Your task to perform on an android device: all mails in gmail Image 0: 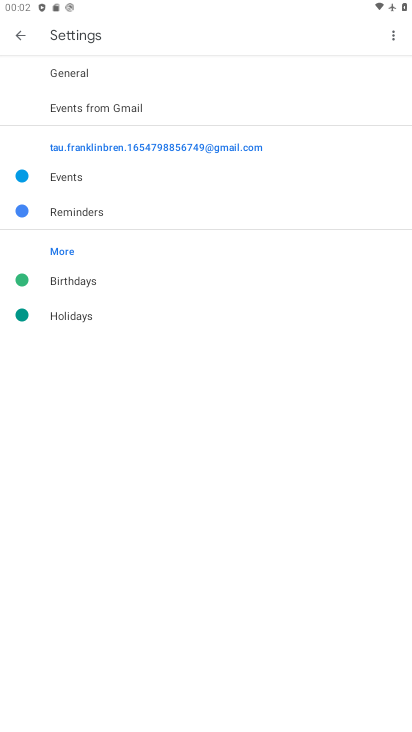
Step 0: press back button
Your task to perform on an android device: all mails in gmail Image 1: 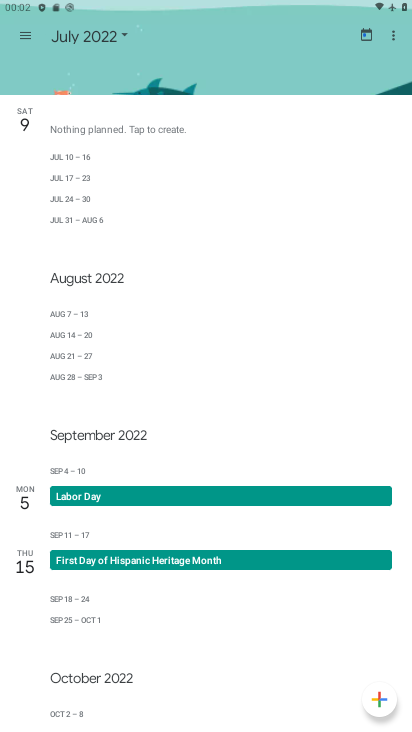
Step 1: press home button
Your task to perform on an android device: all mails in gmail Image 2: 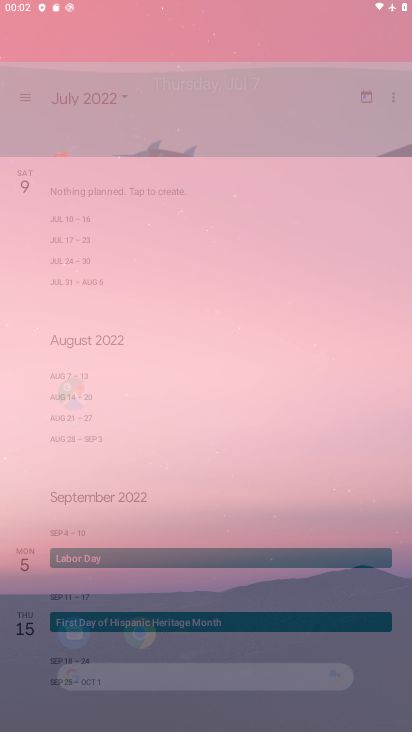
Step 2: press home button
Your task to perform on an android device: all mails in gmail Image 3: 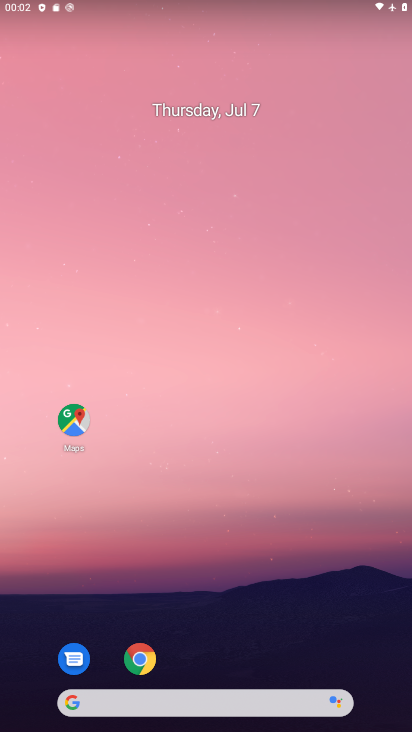
Step 3: drag from (242, 661) to (150, 119)
Your task to perform on an android device: all mails in gmail Image 4: 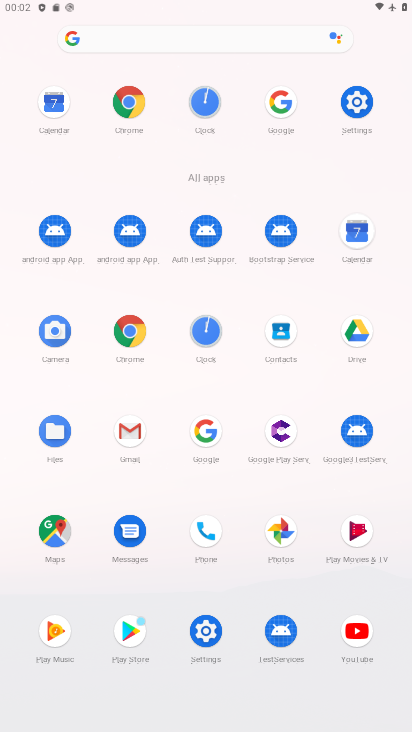
Step 4: click (127, 434)
Your task to perform on an android device: all mails in gmail Image 5: 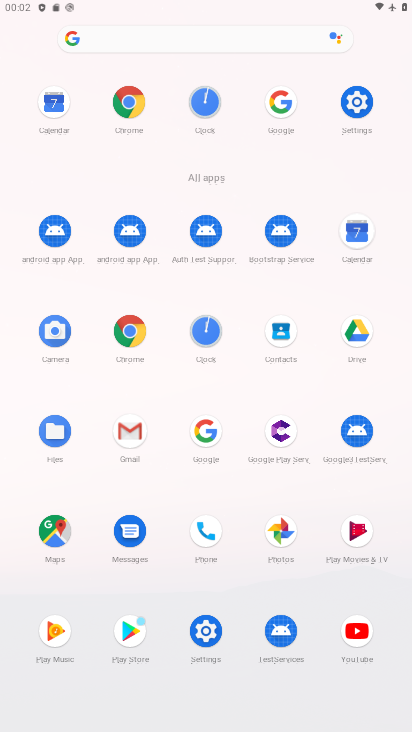
Step 5: click (131, 433)
Your task to perform on an android device: all mails in gmail Image 6: 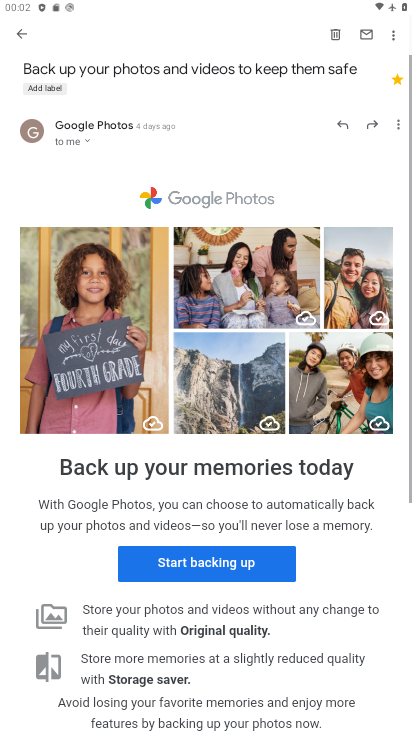
Step 6: click (133, 433)
Your task to perform on an android device: all mails in gmail Image 7: 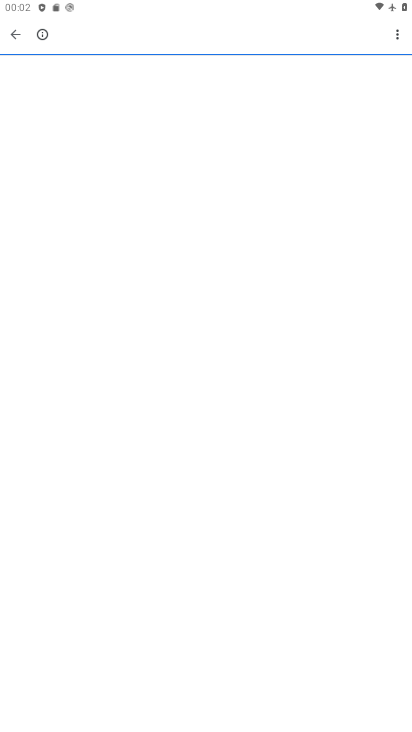
Step 7: click (18, 33)
Your task to perform on an android device: all mails in gmail Image 8: 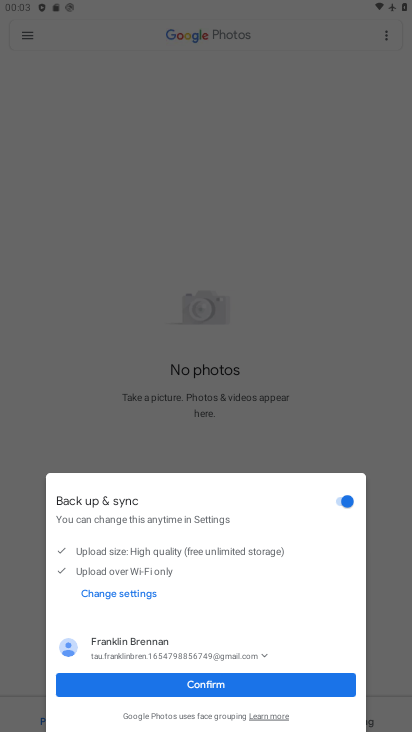
Step 8: click (253, 307)
Your task to perform on an android device: all mails in gmail Image 9: 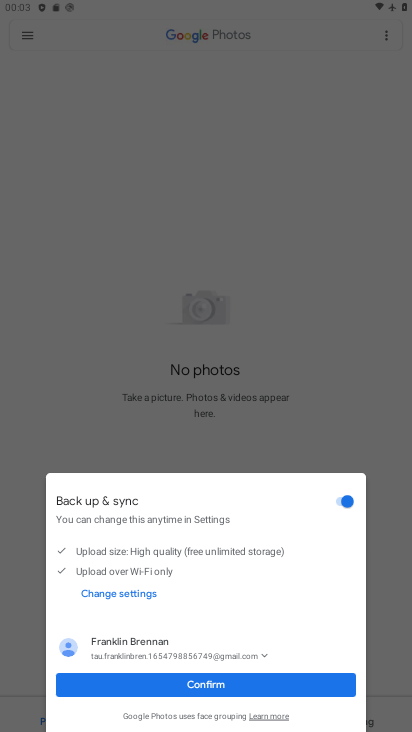
Step 9: click (277, 303)
Your task to perform on an android device: all mails in gmail Image 10: 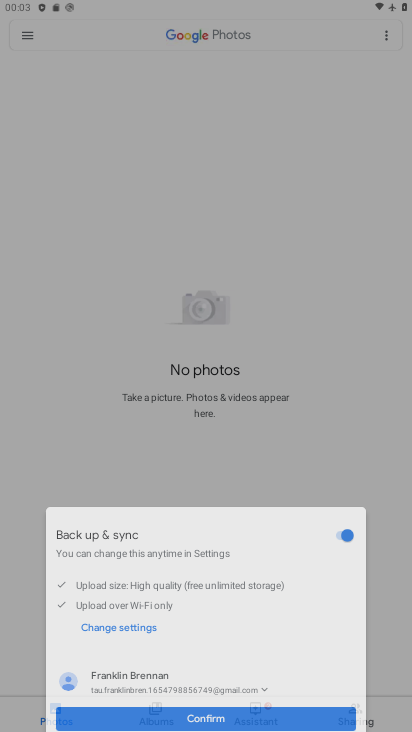
Step 10: drag from (282, 303) to (290, 354)
Your task to perform on an android device: all mails in gmail Image 11: 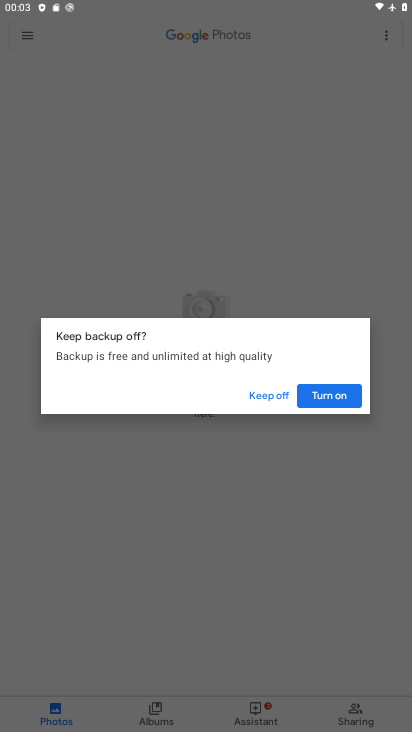
Step 11: click (282, 394)
Your task to perform on an android device: all mails in gmail Image 12: 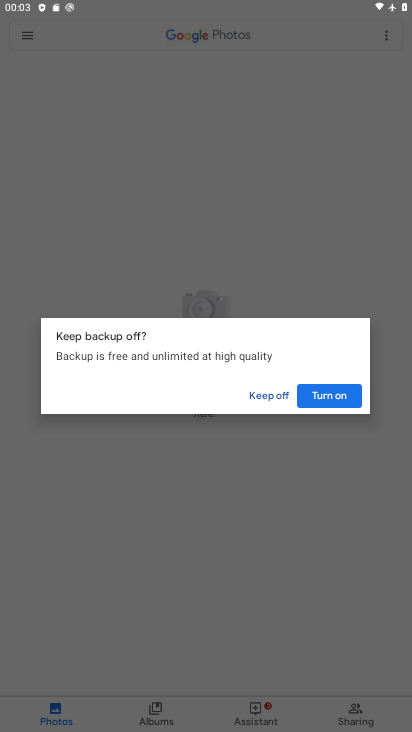
Step 12: click (284, 394)
Your task to perform on an android device: all mails in gmail Image 13: 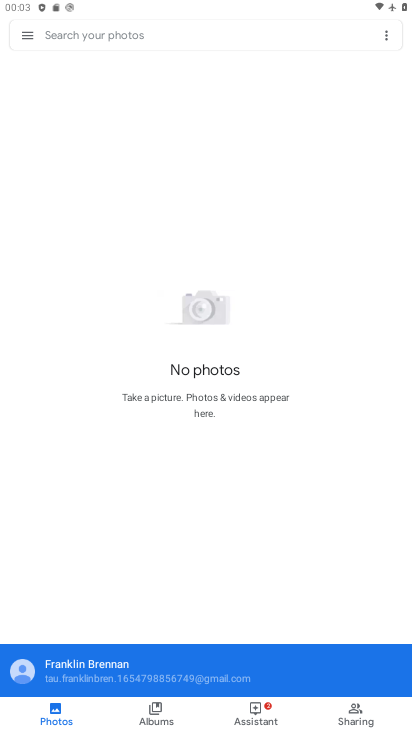
Step 13: click (34, 44)
Your task to perform on an android device: all mails in gmail Image 14: 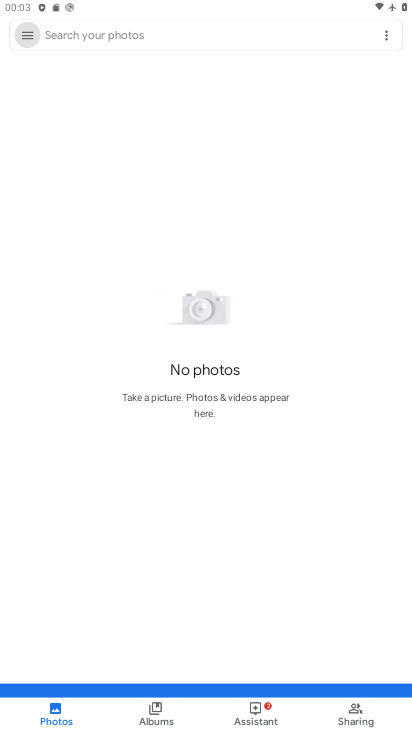
Step 14: click (34, 44)
Your task to perform on an android device: all mails in gmail Image 15: 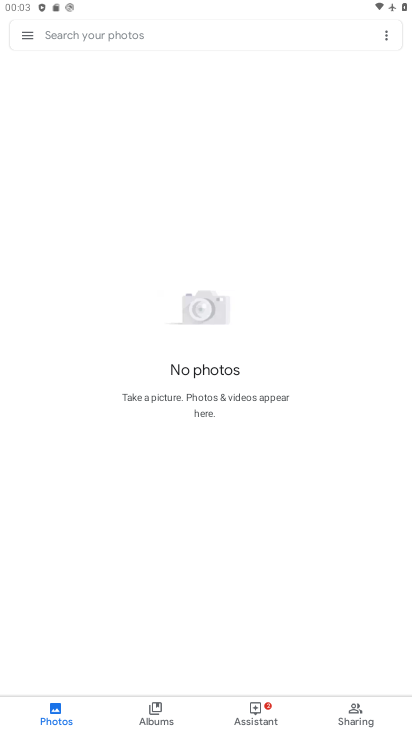
Step 15: press back button
Your task to perform on an android device: all mails in gmail Image 16: 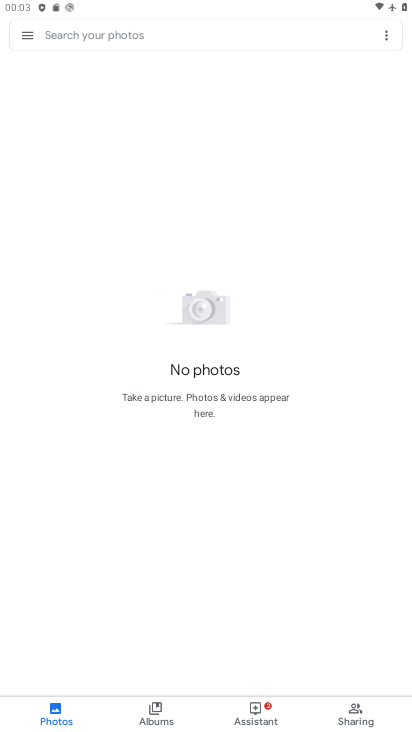
Step 16: press back button
Your task to perform on an android device: all mails in gmail Image 17: 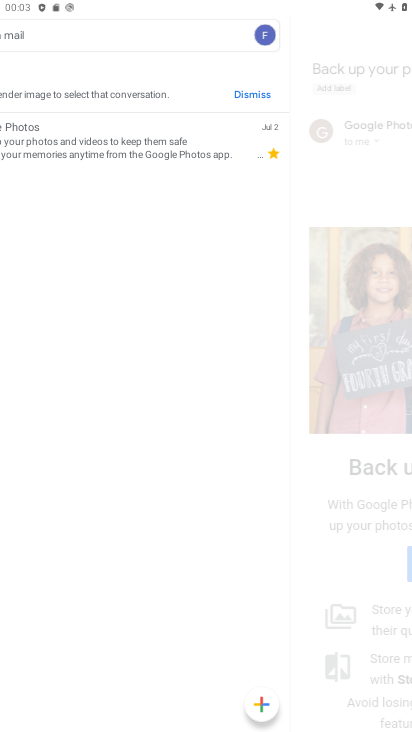
Step 17: press back button
Your task to perform on an android device: all mails in gmail Image 18: 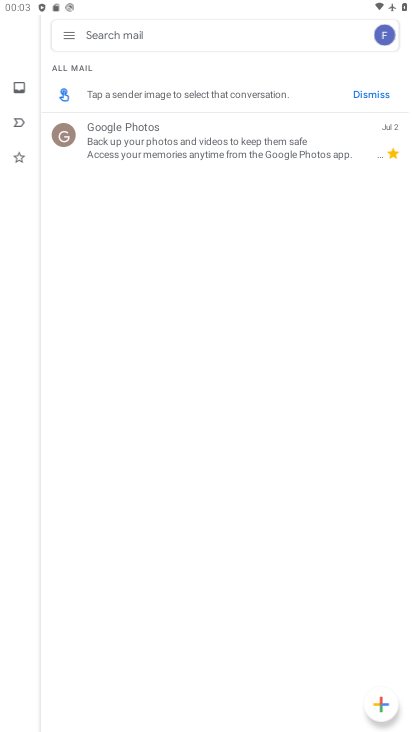
Step 18: press home button
Your task to perform on an android device: all mails in gmail Image 19: 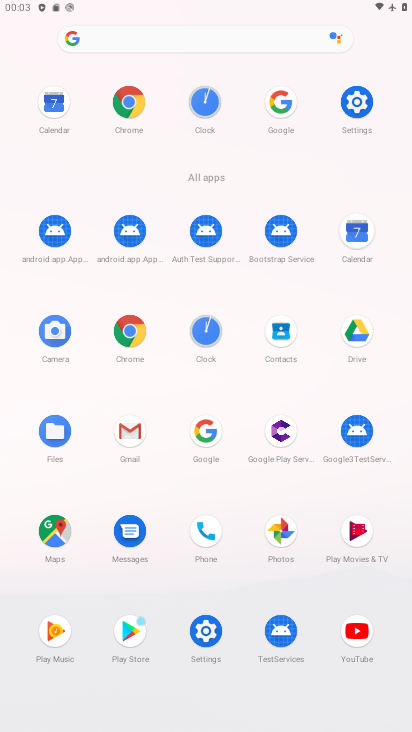
Step 19: press home button
Your task to perform on an android device: all mails in gmail Image 20: 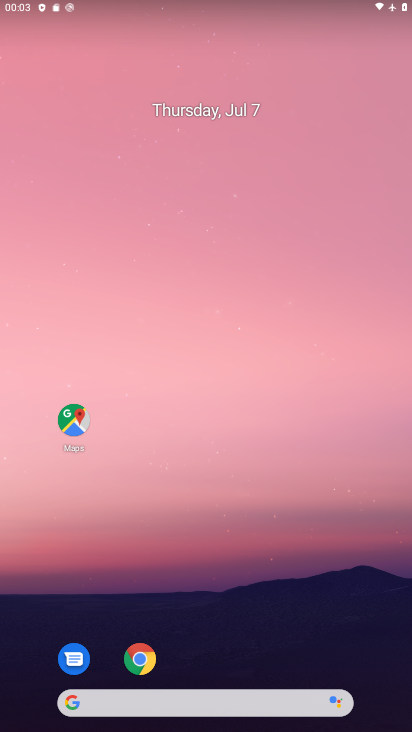
Step 20: press back button
Your task to perform on an android device: all mails in gmail Image 21: 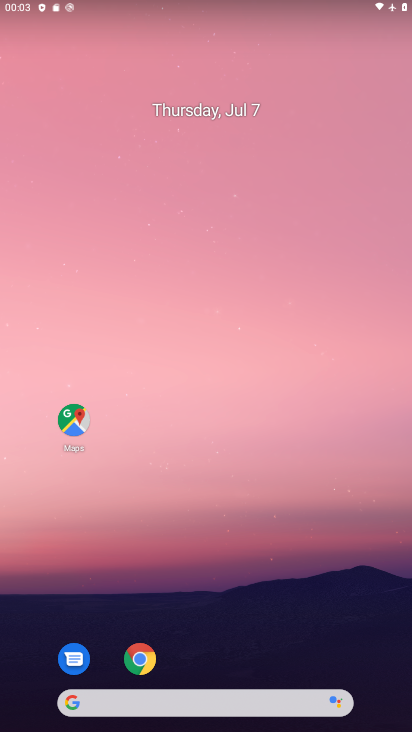
Step 21: press back button
Your task to perform on an android device: all mails in gmail Image 22: 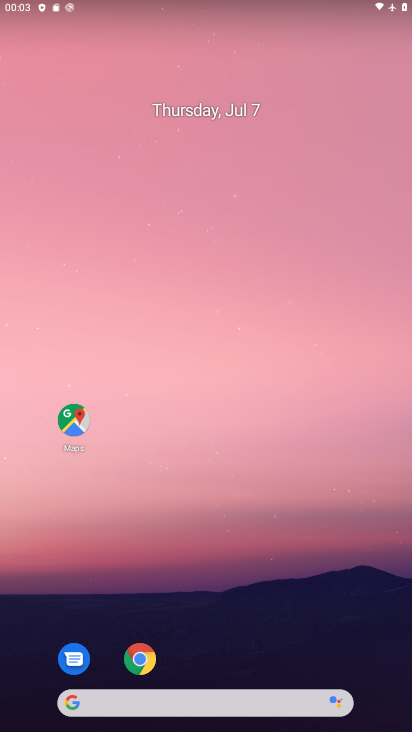
Step 22: press back button
Your task to perform on an android device: all mails in gmail Image 23: 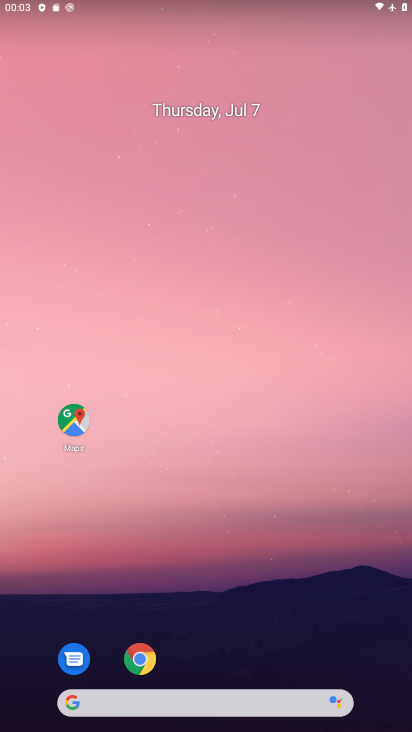
Step 23: drag from (247, 604) to (180, 207)
Your task to perform on an android device: all mails in gmail Image 24: 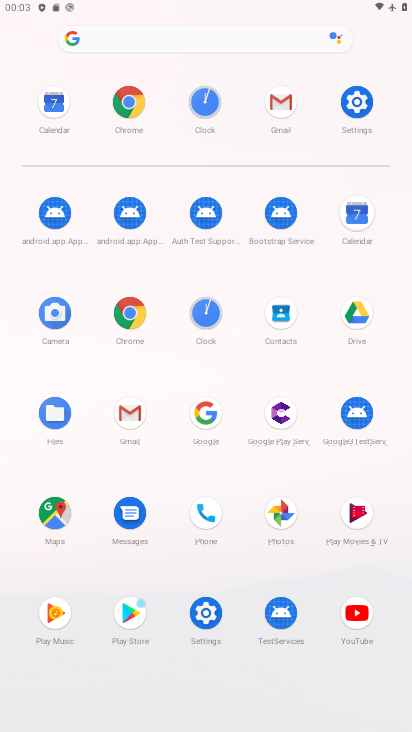
Step 24: click (124, 413)
Your task to perform on an android device: all mails in gmail Image 25: 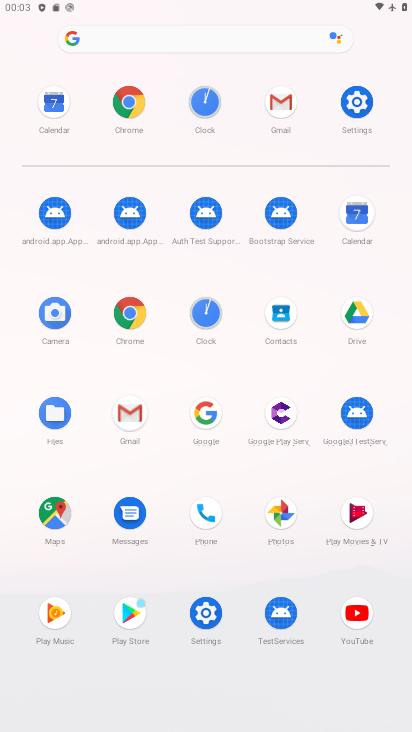
Step 25: click (136, 412)
Your task to perform on an android device: all mails in gmail Image 26: 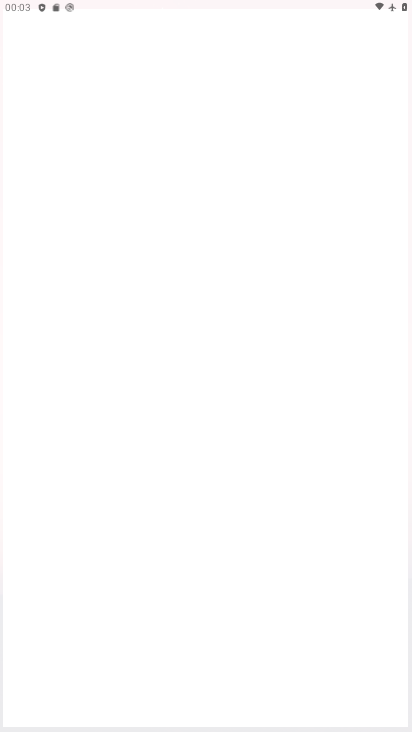
Step 26: click (139, 413)
Your task to perform on an android device: all mails in gmail Image 27: 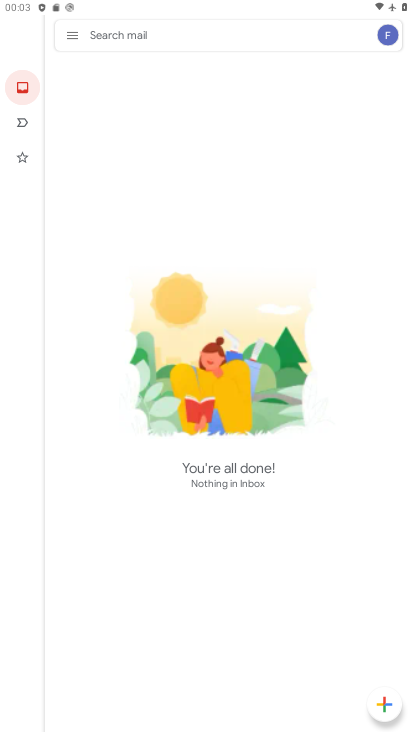
Step 27: click (60, 37)
Your task to perform on an android device: all mails in gmail Image 28: 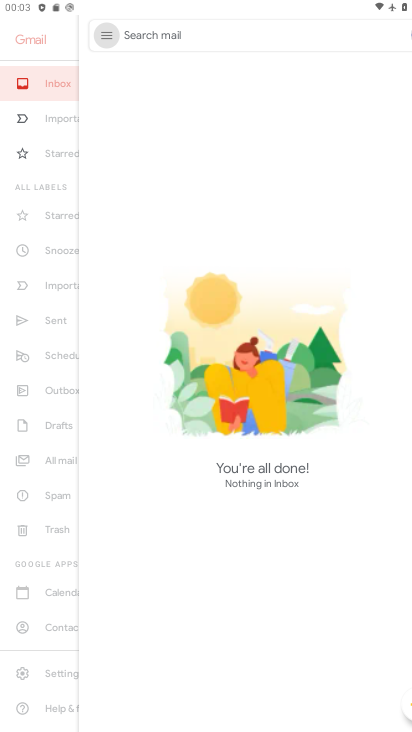
Step 28: click (63, 35)
Your task to perform on an android device: all mails in gmail Image 29: 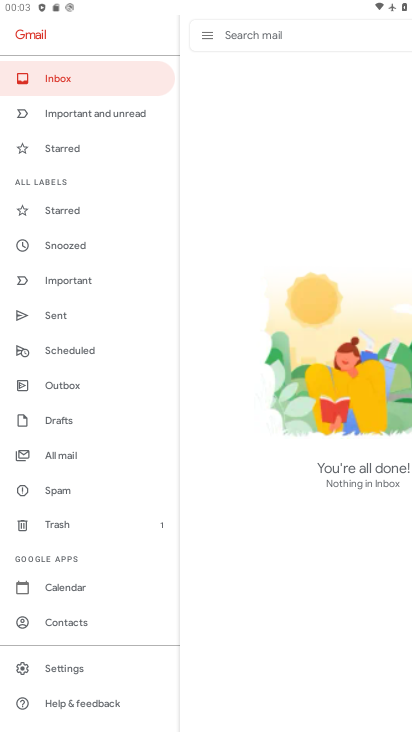
Step 29: click (67, 455)
Your task to perform on an android device: all mails in gmail Image 30: 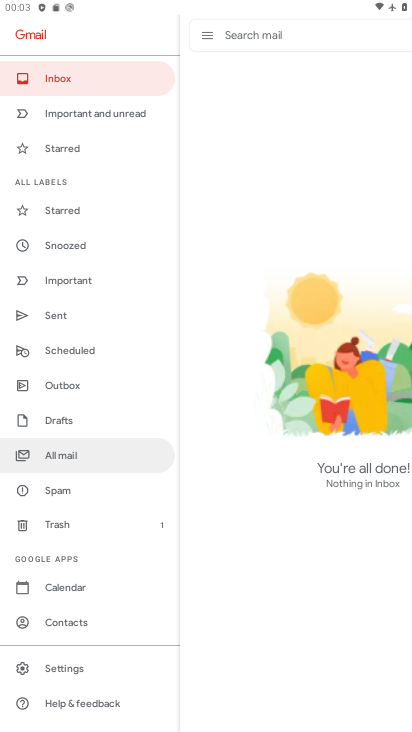
Step 30: click (71, 450)
Your task to perform on an android device: all mails in gmail Image 31: 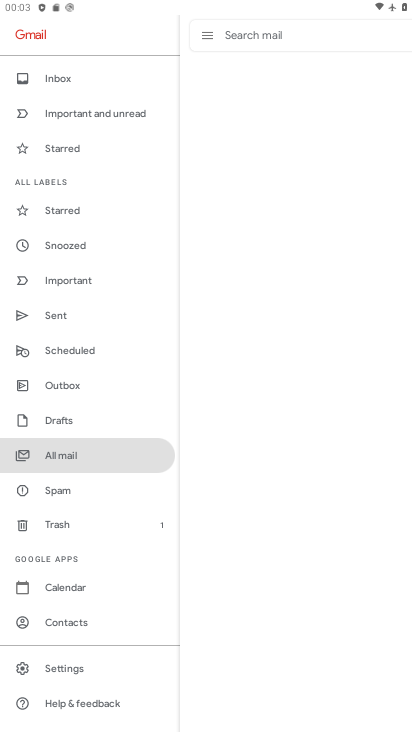
Step 31: click (72, 452)
Your task to perform on an android device: all mails in gmail Image 32: 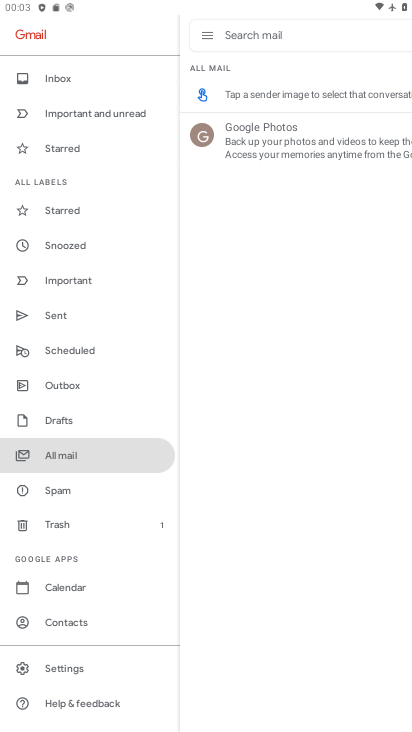
Step 32: task complete